Your task to perform on an android device: toggle notification dots Image 0: 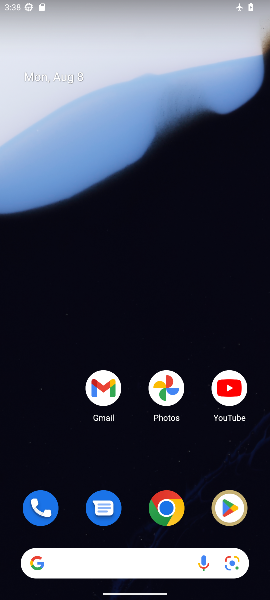
Step 0: drag from (130, 457) to (129, 20)
Your task to perform on an android device: toggle notification dots Image 1: 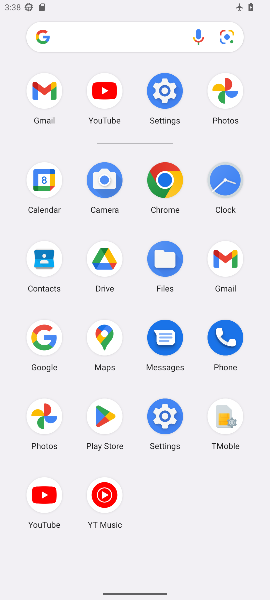
Step 1: click (165, 90)
Your task to perform on an android device: toggle notification dots Image 2: 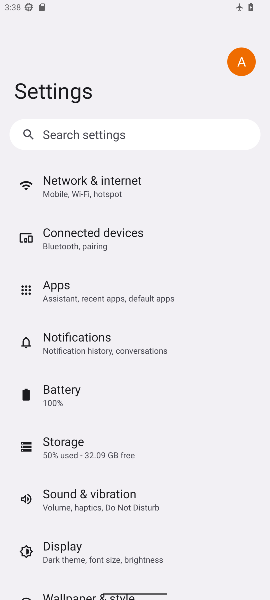
Step 2: click (90, 337)
Your task to perform on an android device: toggle notification dots Image 3: 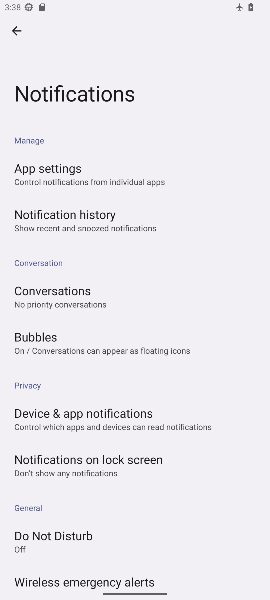
Step 3: drag from (167, 518) to (178, 273)
Your task to perform on an android device: toggle notification dots Image 4: 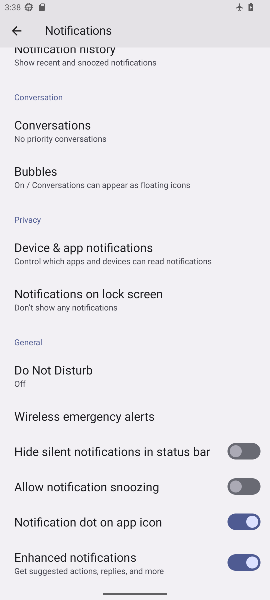
Step 4: click (249, 516)
Your task to perform on an android device: toggle notification dots Image 5: 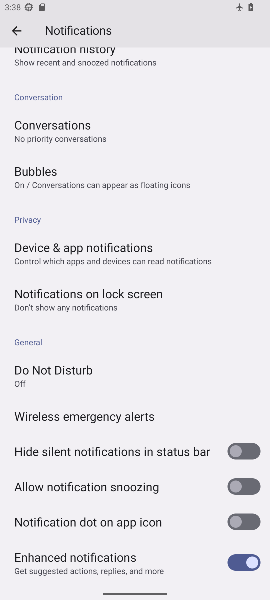
Step 5: task complete